Your task to perform on an android device: Go to Google maps Image 0: 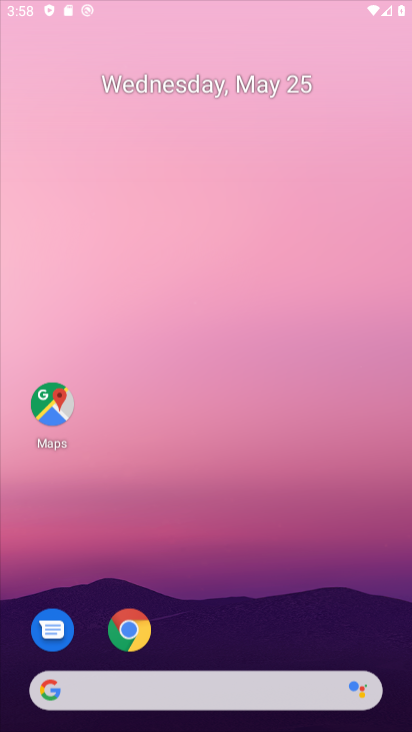
Step 0: click (226, 171)
Your task to perform on an android device: Go to Google maps Image 1: 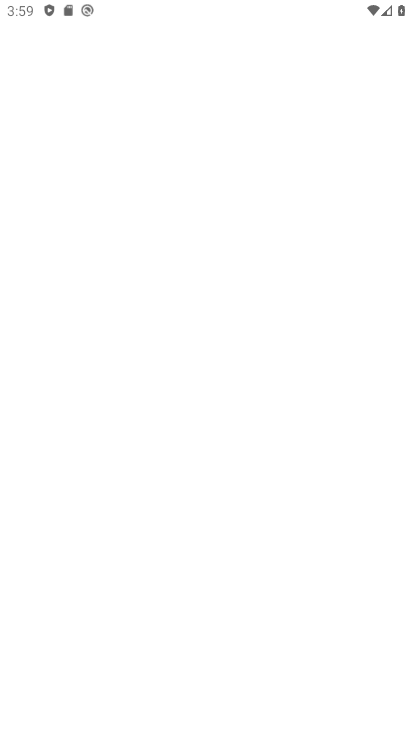
Step 1: task complete